Your task to perform on an android device: check battery use Image 0: 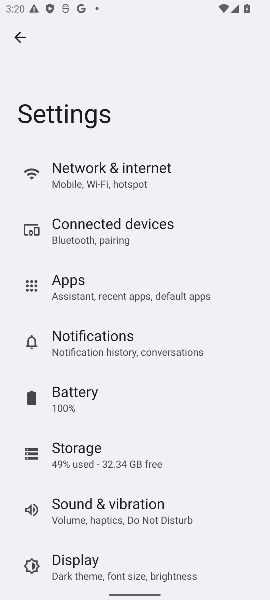
Step 0: click (115, 405)
Your task to perform on an android device: check battery use Image 1: 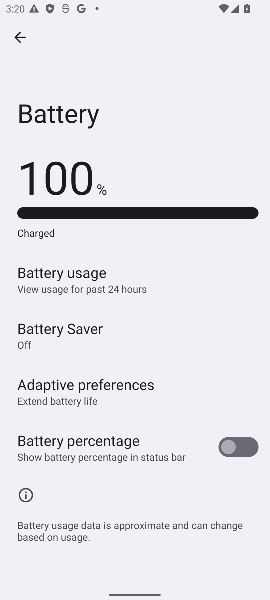
Step 1: click (188, 291)
Your task to perform on an android device: check battery use Image 2: 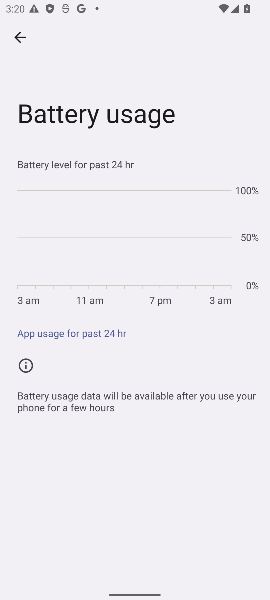
Step 2: task complete